Your task to perform on an android device: Go to display settings Image 0: 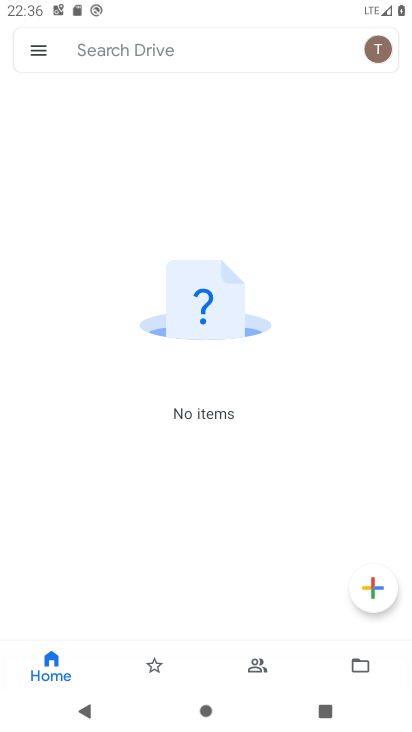
Step 0: press home button
Your task to perform on an android device: Go to display settings Image 1: 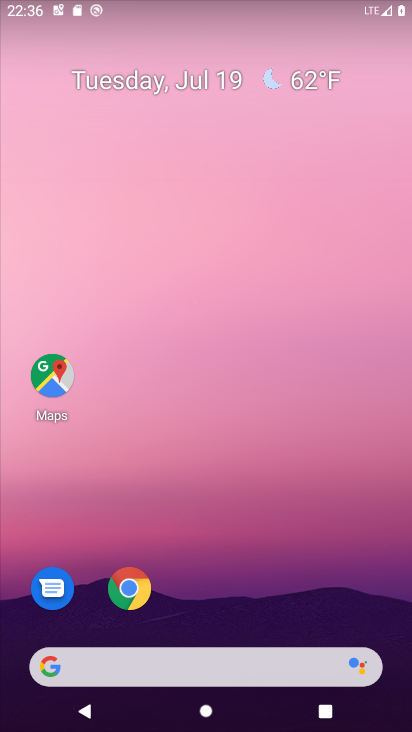
Step 1: drag from (179, 587) to (195, 148)
Your task to perform on an android device: Go to display settings Image 2: 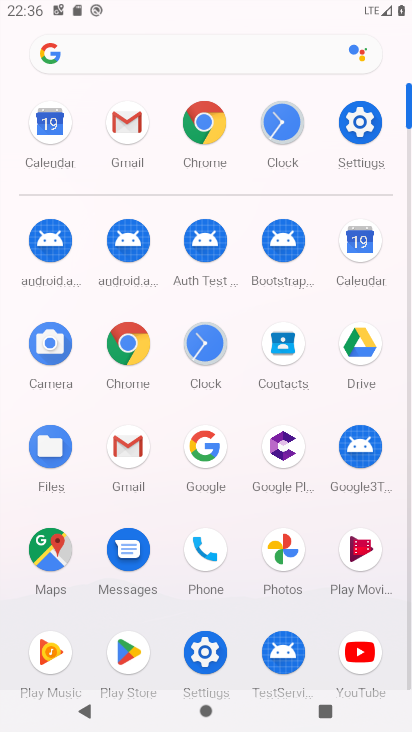
Step 2: click (370, 134)
Your task to perform on an android device: Go to display settings Image 3: 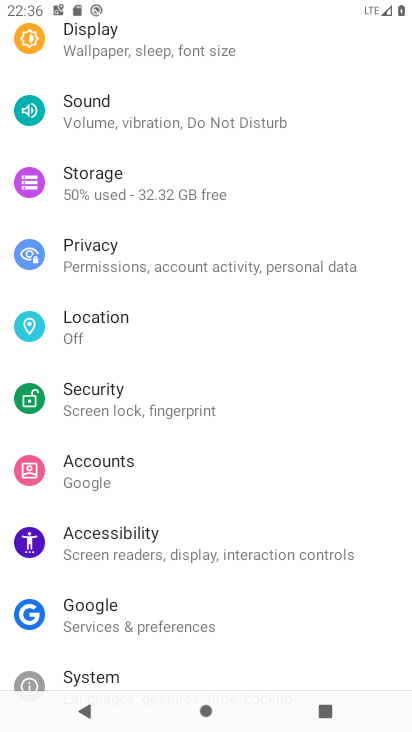
Step 3: click (91, 42)
Your task to perform on an android device: Go to display settings Image 4: 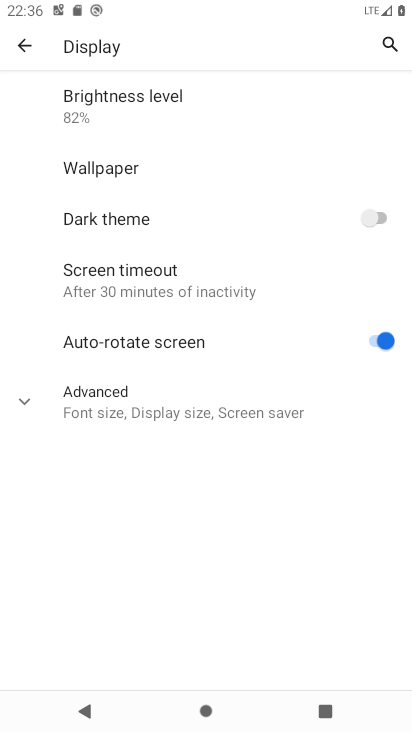
Step 4: task complete